Your task to perform on an android device: Search for seafood restaurants on Google Maps Image 0: 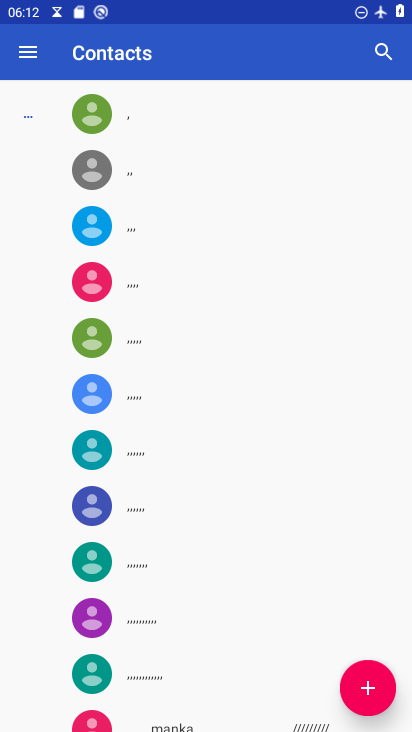
Step 0: press home button
Your task to perform on an android device: Search for seafood restaurants on Google Maps Image 1: 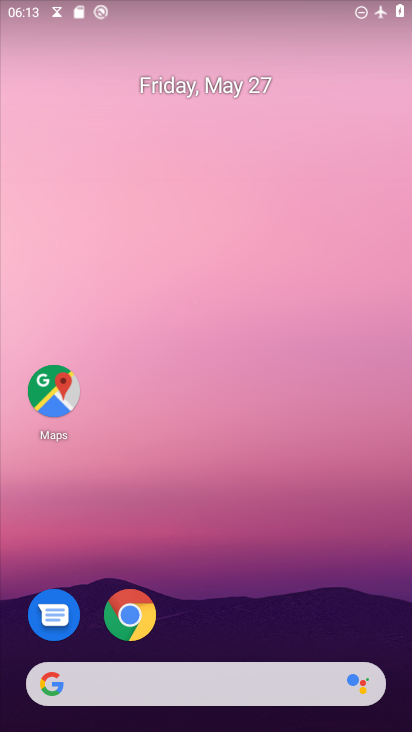
Step 1: click (59, 394)
Your task to perform on an android device: Search for seafood restaurants on Google Maps Image 2: 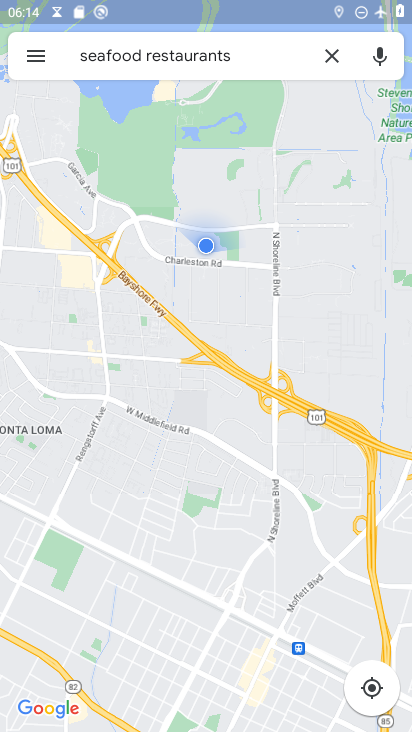
Step 2: task complete